Your task to perform on an android device: Open Yahoo.com Image 0: 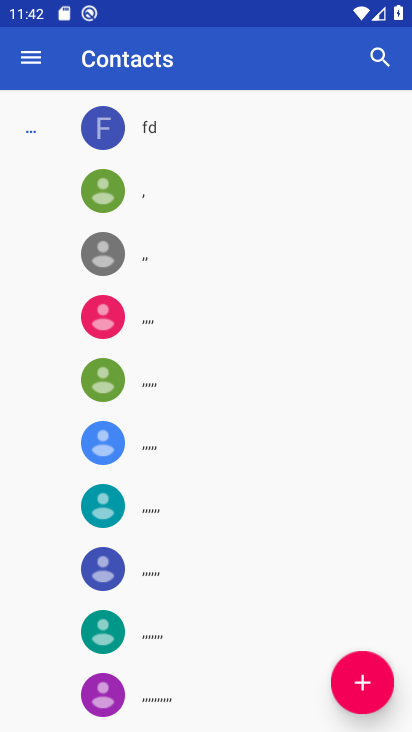
Step 0: press home button
Your task to perform on an android device: Open Yahoo.com Image 1: 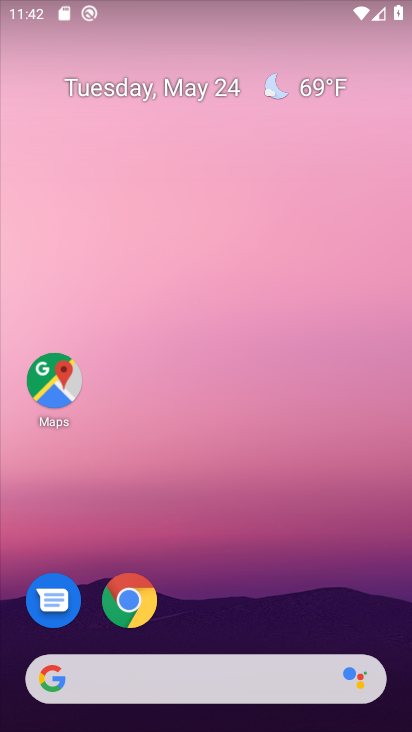
Step 1: drag from (385, 623) to (382, 265)
Your task to perform on an android device: Open Yahoo.com Image 2: 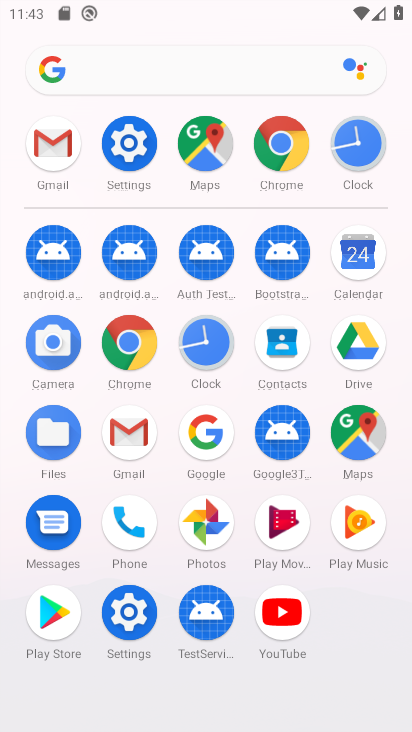
Step 2: click (125, 362)
Your task to perform on an android device: Open Yahoo.com Image 3: 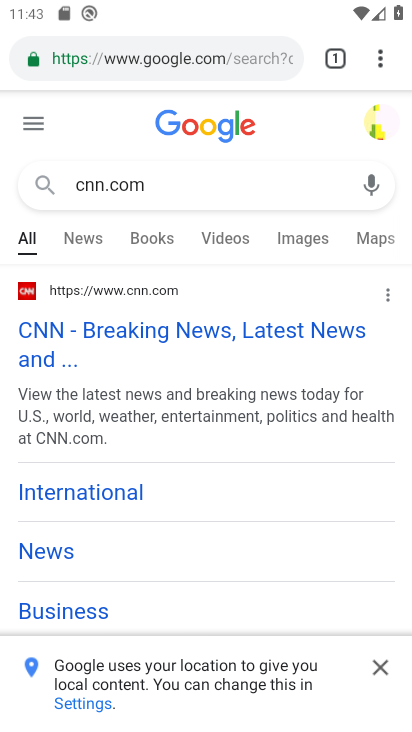
Step 3: click (237, 67)
Your task to perform on an android device: Open Yahoo.com Image 4: 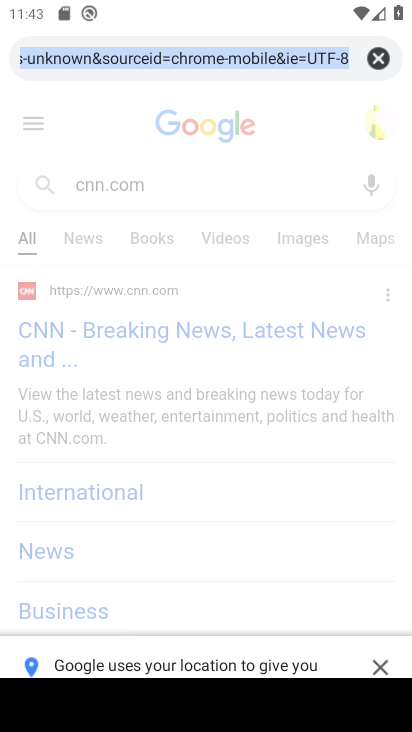
Step 4: click (376, 59)
Your task to perform on an android device: Open Yahoo.com Image 5: 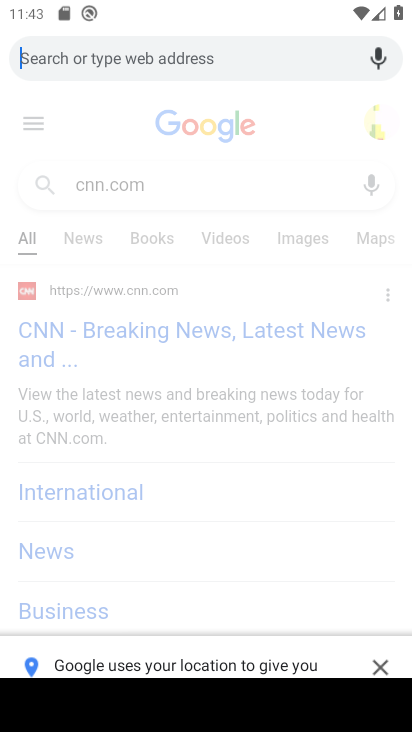
Step 5: type "yahoo.com"
Your task to perform on an android device: Open Yahoo.com Image 6: 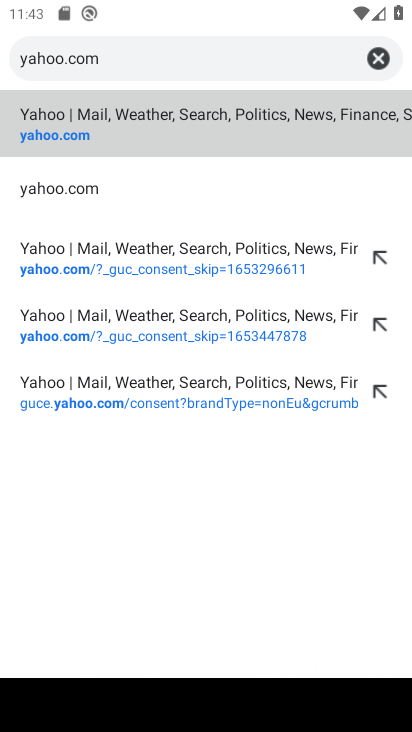
Step 6: click (192, 191)
Your task to perform on an android device: Open Yahoo.com Image 7: 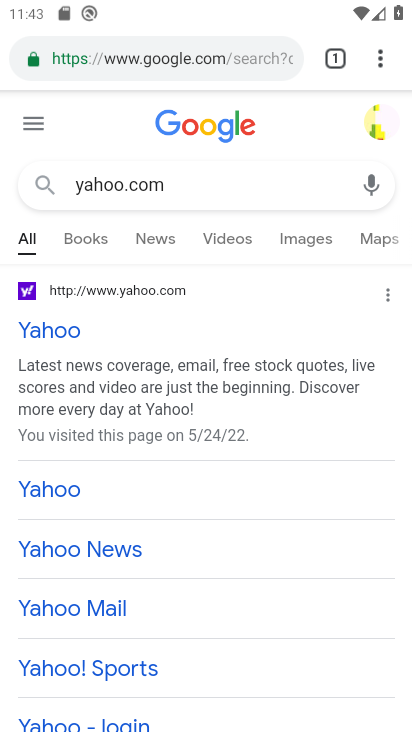
Step 7: task complete